Your task to perform on an android device: Search for sushi restaurants on Maps Image 0: 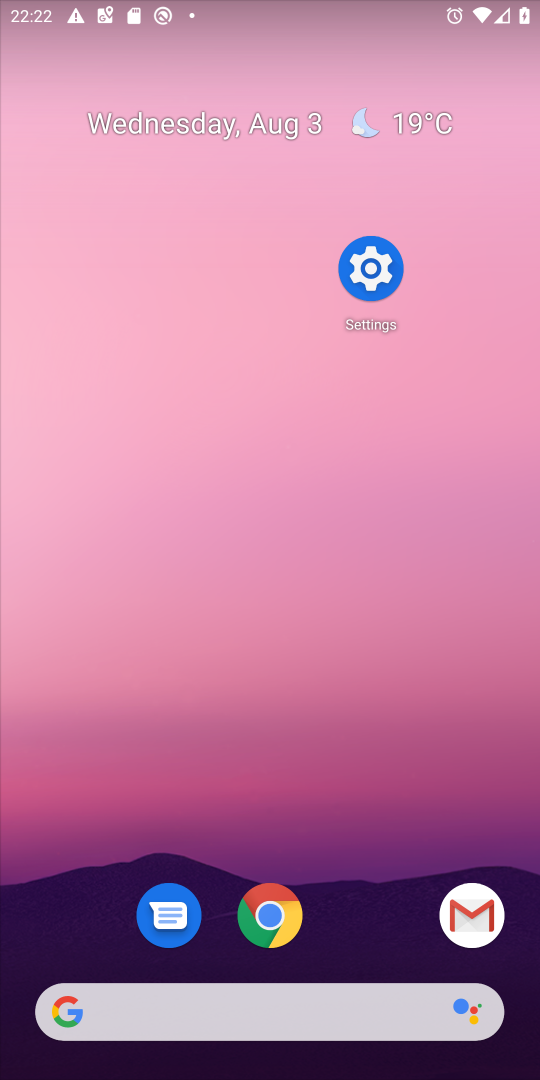
Step 0: press home button
Your task to perform on an android device: Search for sushi restaurants on Maps Image 1: 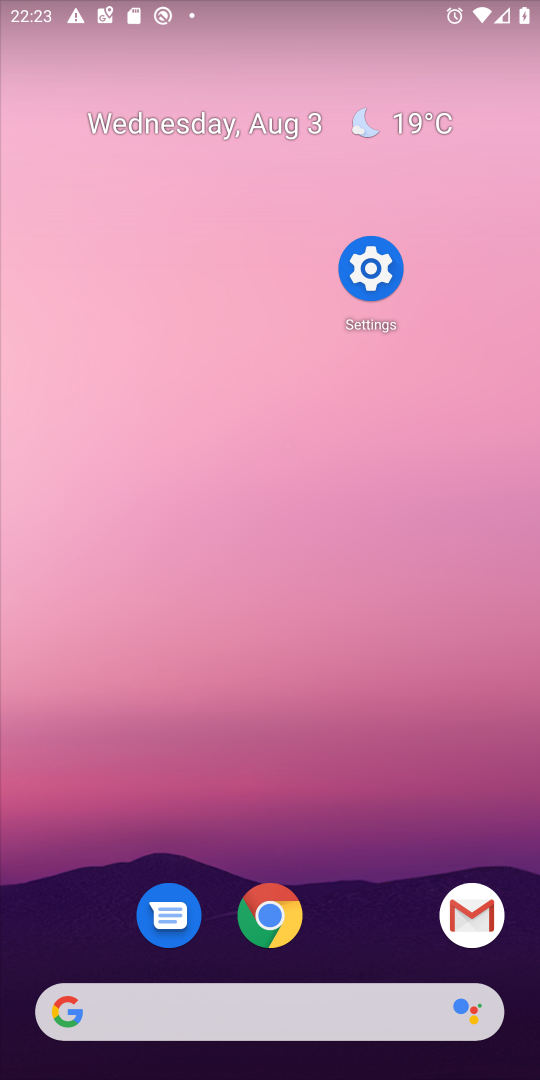
Step 1: drag from (360, 1044) to (263, 140)
Your task to perform on an android device: Search for sushi restaurants on Maps Image 2: 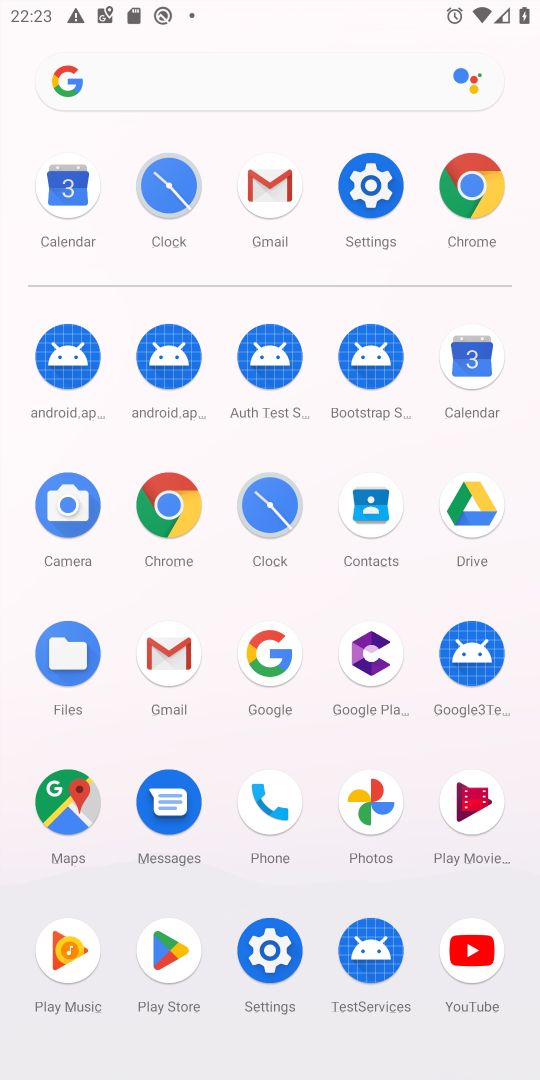
Step 2: click (71, 814)
Your task to perform on an android device: Search for sushi restaurants on Maps Image 3: 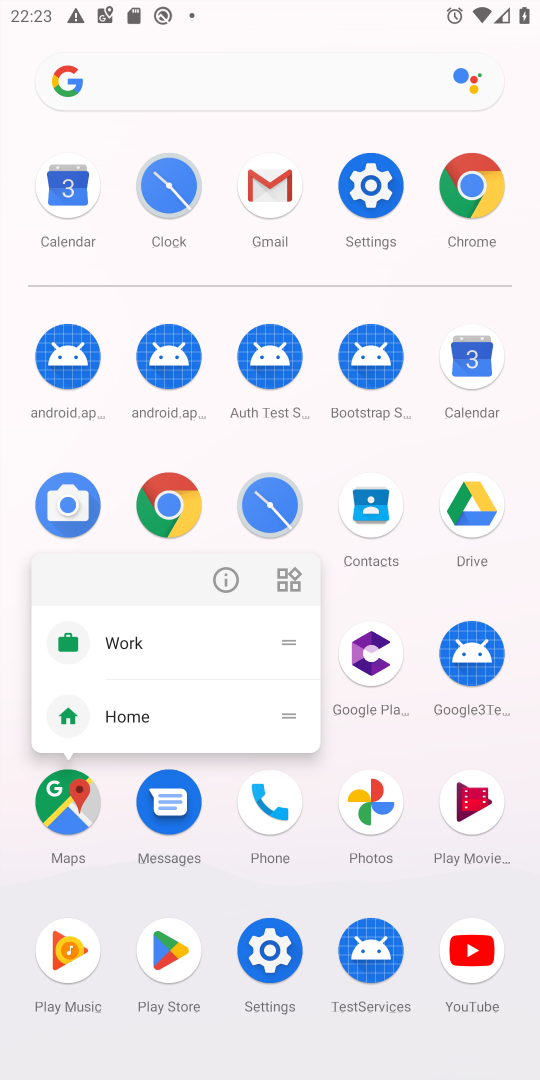
Step 3: click (76, 826)
Your task to perform on an android device: Search for sushi restaurants on Maps Image 4: 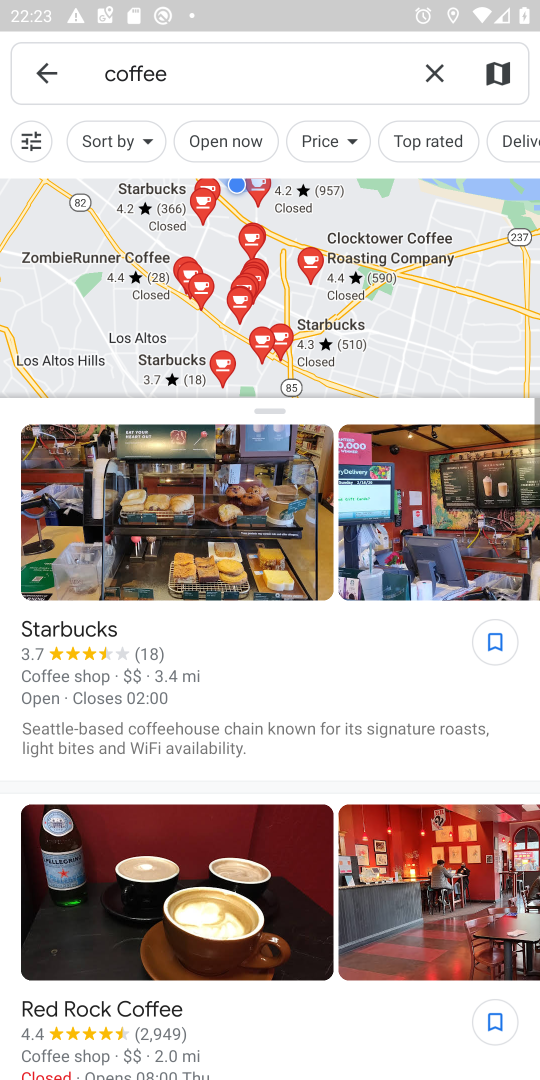
Step 4: click (440, 66)
Your task to perform on an android device: Search for sushi restaurants on Maps Image 5: 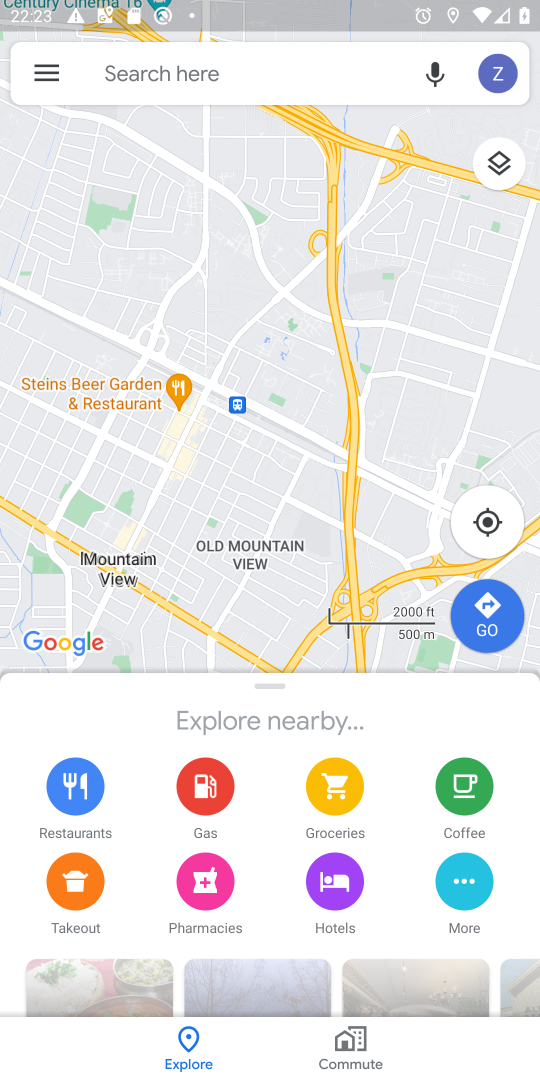
Step 5: click (130, 77)
Your task to perform on an android device: Search for sushi restaurants on Maps Image 6: 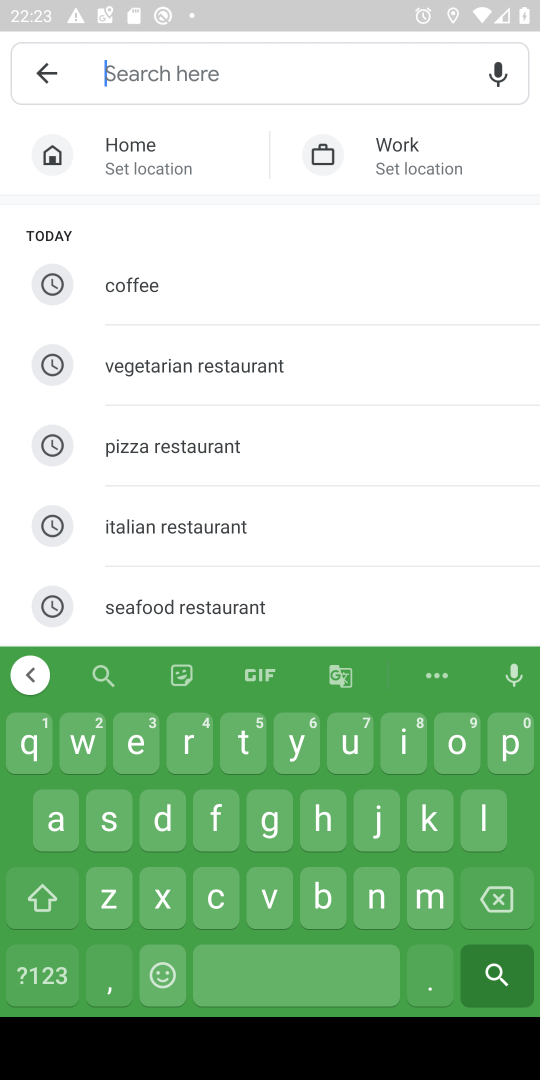
Step 6: click (100, 827)
Your task to perform on an android device: Search for sushi restaurants on Maps Image 7: 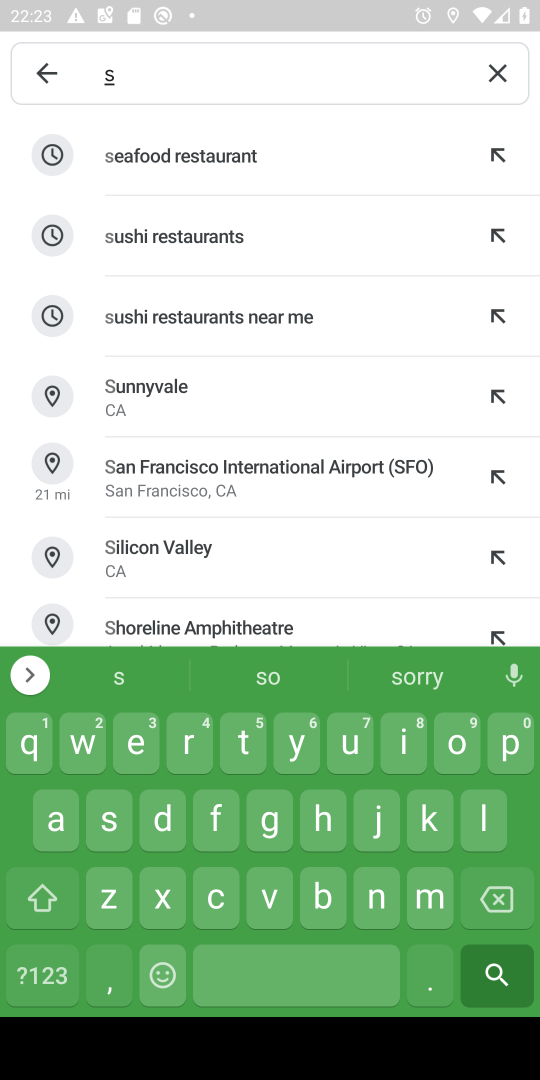
Step 7: click (180, 239)
Your task to perform on an android device: Search for sushi restaurants on Maps Image 8: 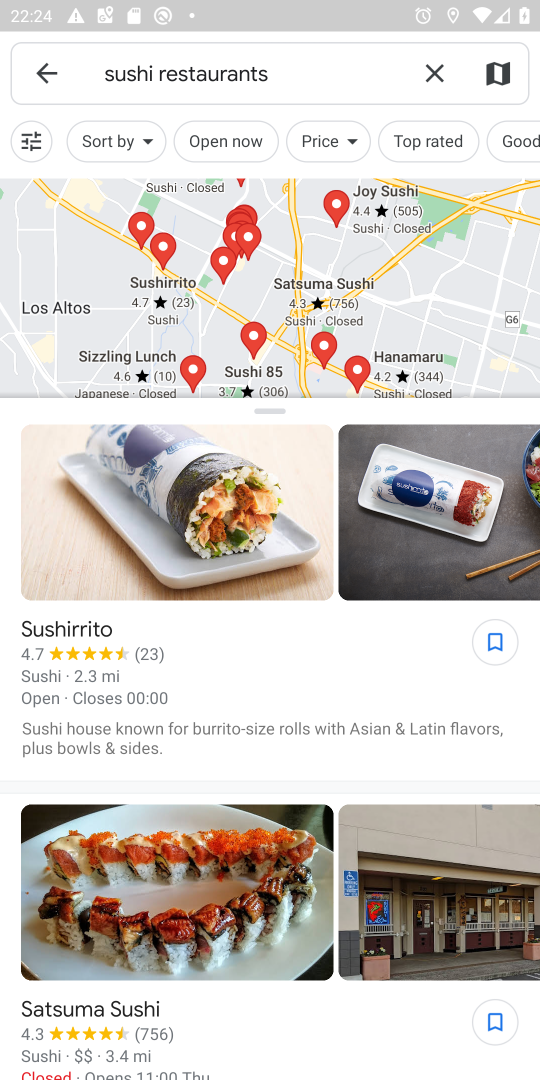
Step 8: task complete